Your task to perform on an android device: delete a single message in the gmail app Image 0: 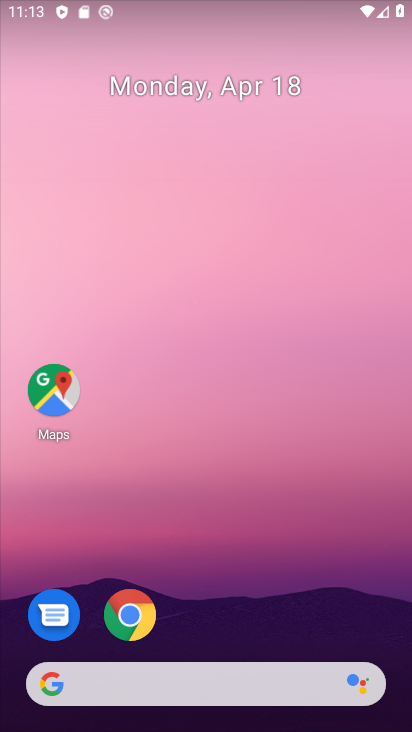
Step 0: drag from (365, 552) to (367, 110)
Your task to perform on an android device: delete a single message in the gmail app Image 1: 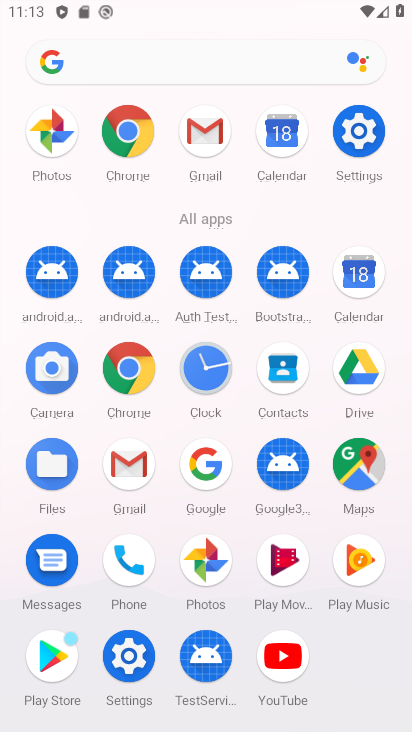
Step 1: click (125, 462)
Your task to perform on an android device: delete a single message in the gmail app Image 2: 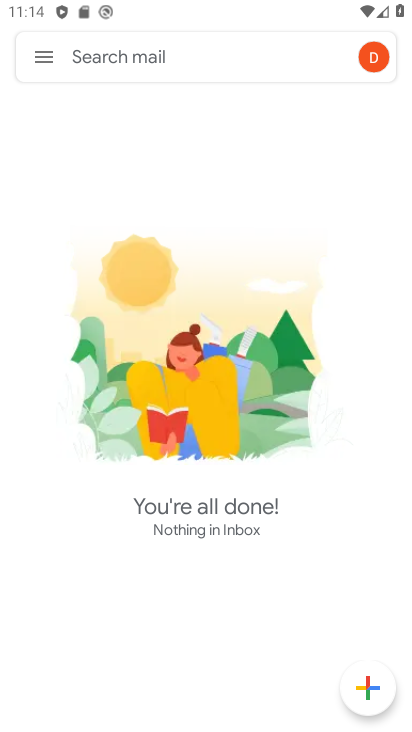
Step 2: task complete